Your task to perform on an android device: add a contact Image 0: 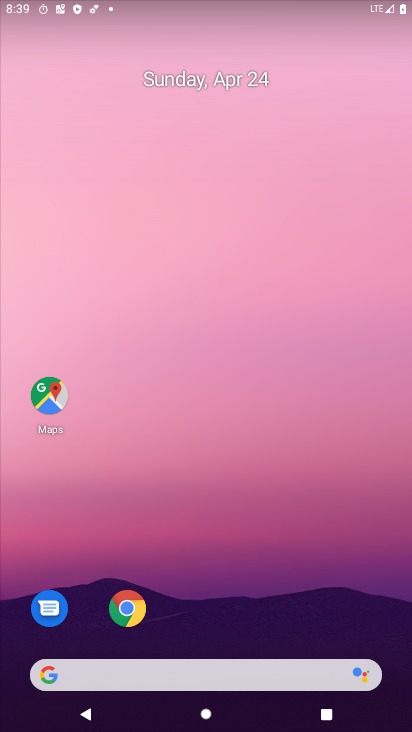
Step 0: drag from (296, 542) to (259, 98)
Your task to perform on an android device: add a contact Image 1: 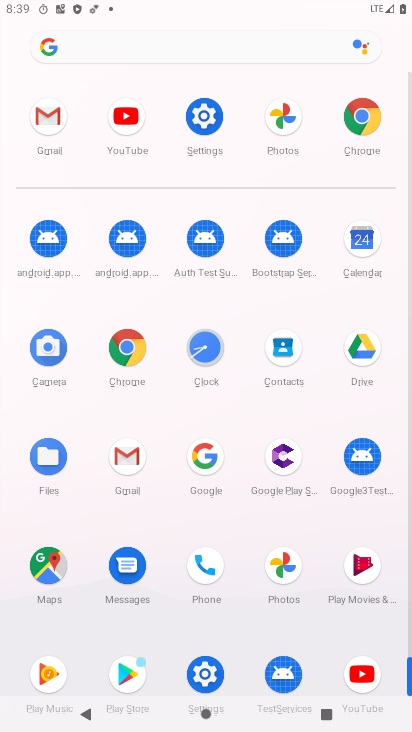
Step 1: click (293, 355)
Your task to perform on an android device: add a contact Image 2: 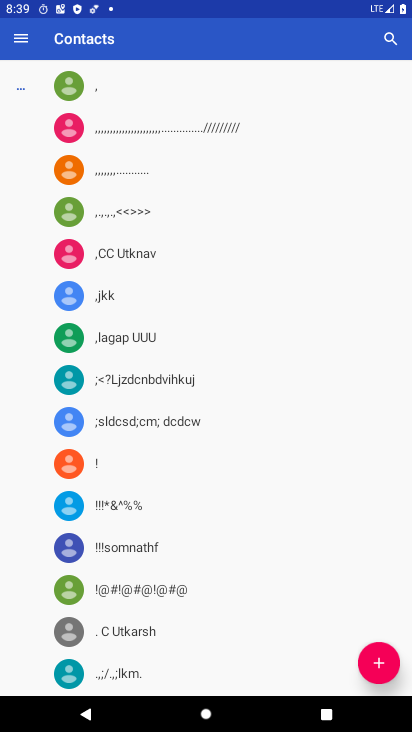
Step 2: click (379, 650)
Your task to perform on an android device: add a contact Image 3: 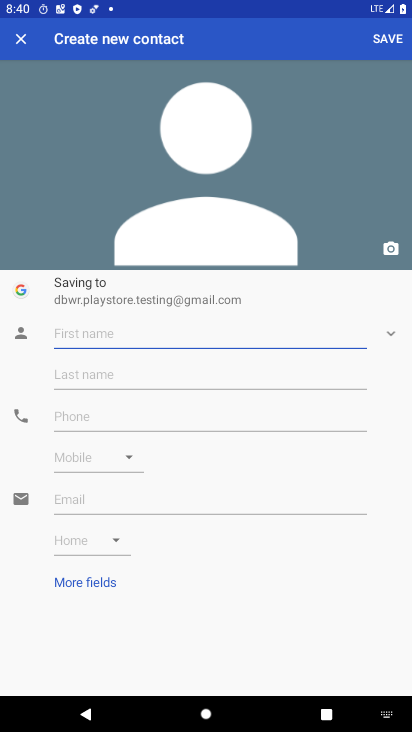
Step 3: type "Vishnuawtar"
Your task to perform on an android device: add a contact Image 4: 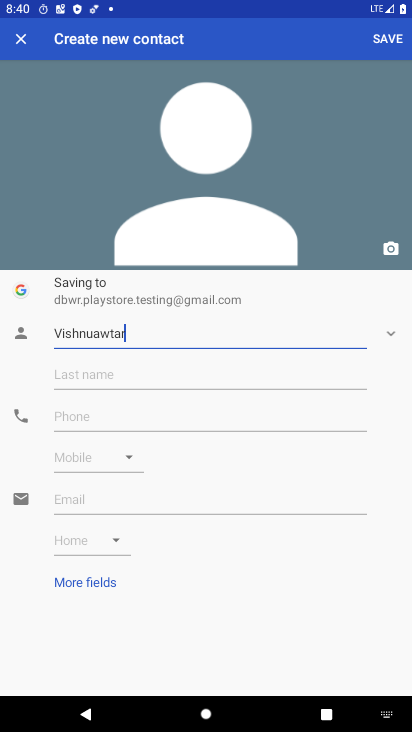
Step 4: click (235, 417)
Your task to perform on an android device: add a contact Image 5: 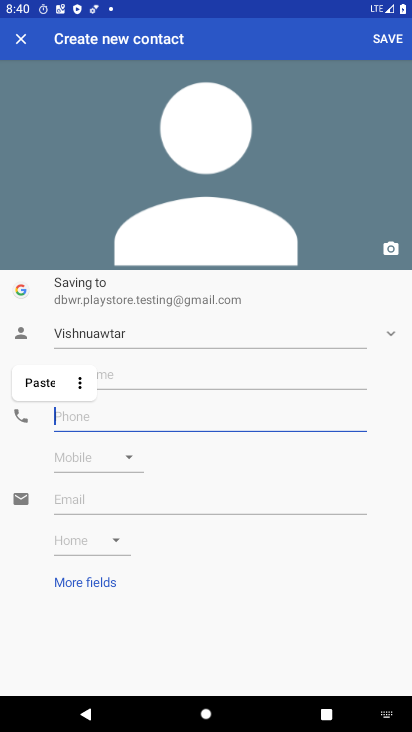
Step 5: type "91112233445566"
Your task to perform on an android device: add a contact Image 6: 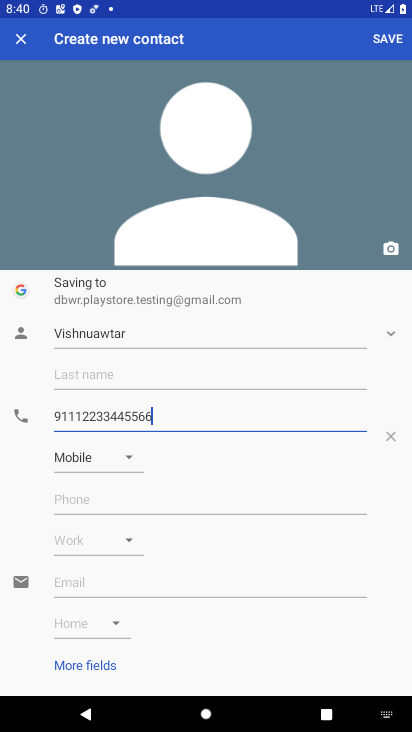
Step 6: click (396, 42)
Your task to perform on an android device: add a contact Image 7: 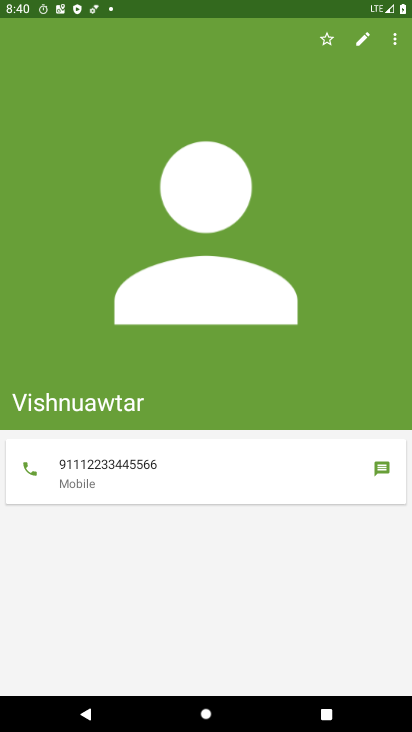
Step 7: task complete